Your task to perform on an android device: change timer sound Image 0: 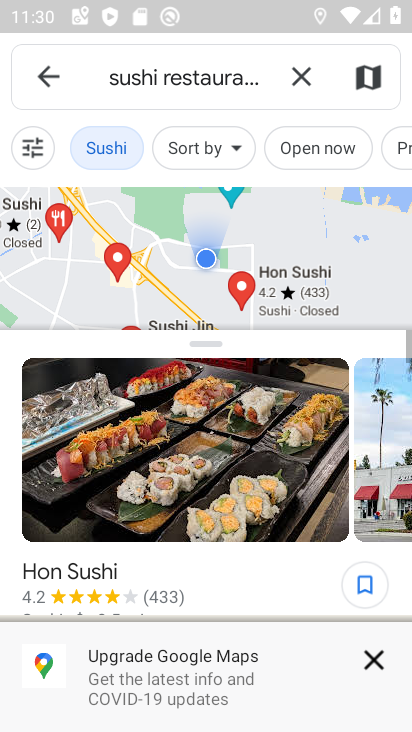
Step 0: press back button
Your task to perform on an android device: change timer sound Image 1: 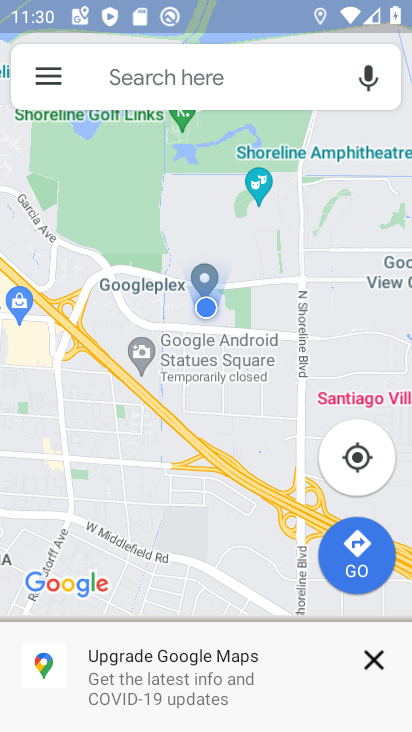
Step 1: press back button
Your task to perform on an android device: change timer sound Image 2: 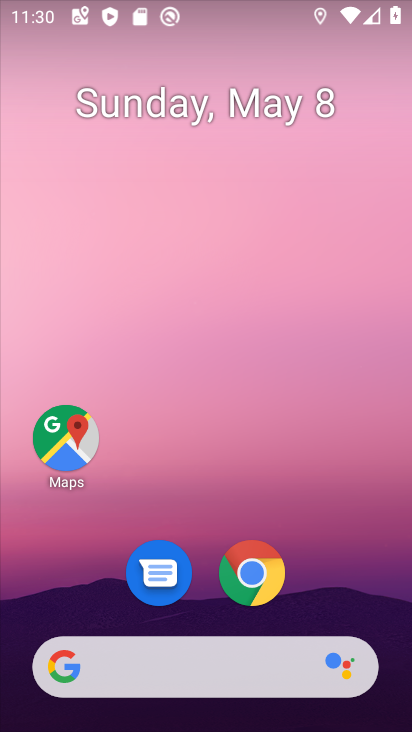
Step 2: drag from (335, 474) to (311, 47)
Your task to perform on an android device: change timer sound Image 3: 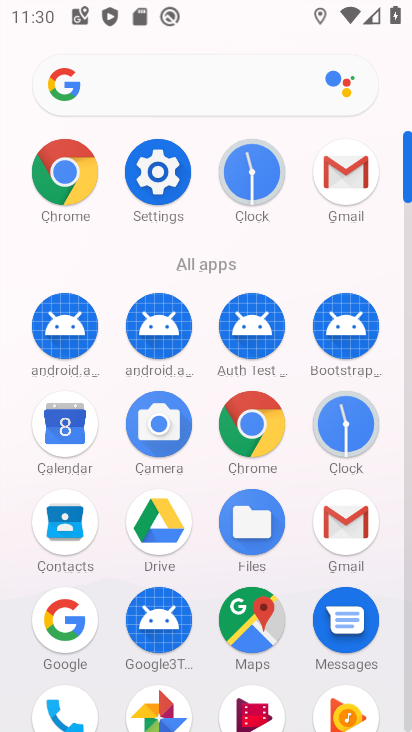
Step 3: click (345, 420)
Your task to perform on an android device: change timer sound Image 4: 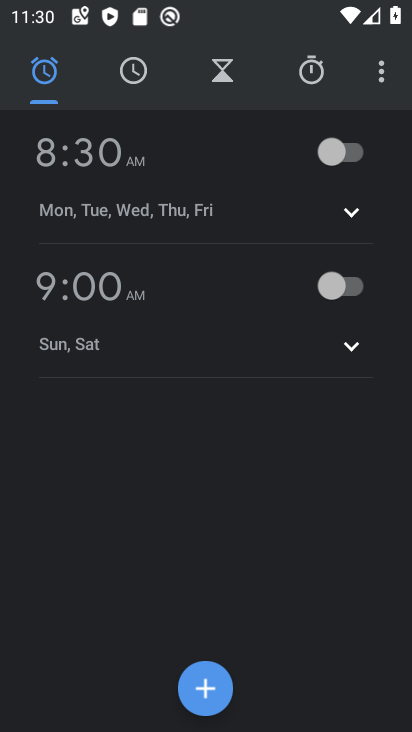
Step 4: drag from (381, 80) to (323, 131)
Your task to perform on an android device: change timer sound Image 5: 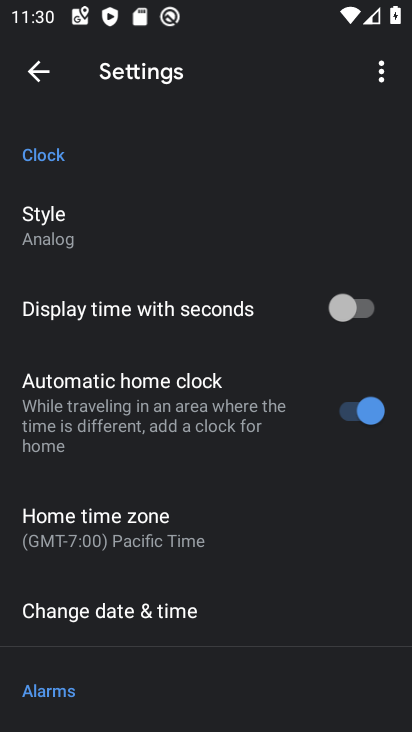
Step 5: drag from (234, 550) to (222, 259)
Your task to perform on an android device: change timer sound Image 6: 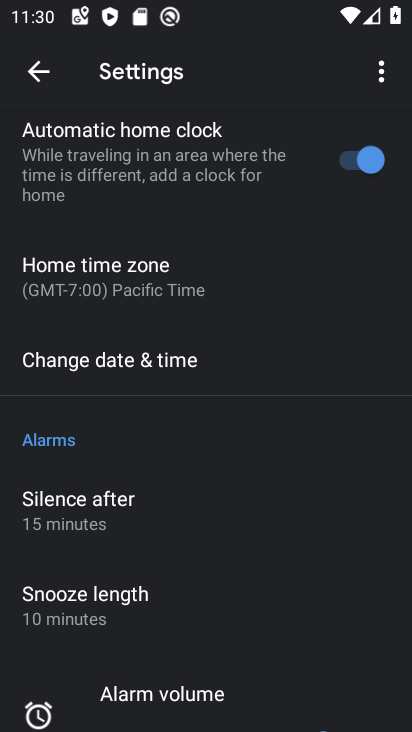
Step 6: drag from (203, 591) to (254, 196)
Your task to perform on an android device: change timer sound Image 7: 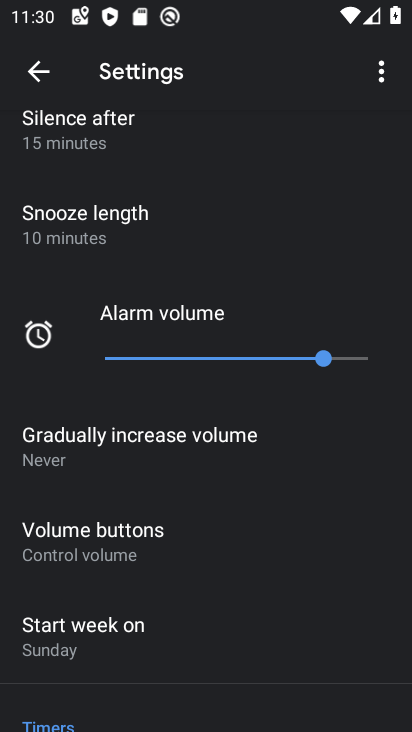
Step 7: drag from (213, 516) to (243, 147)
Your task to perform on an android device: change timer sound Image 8: 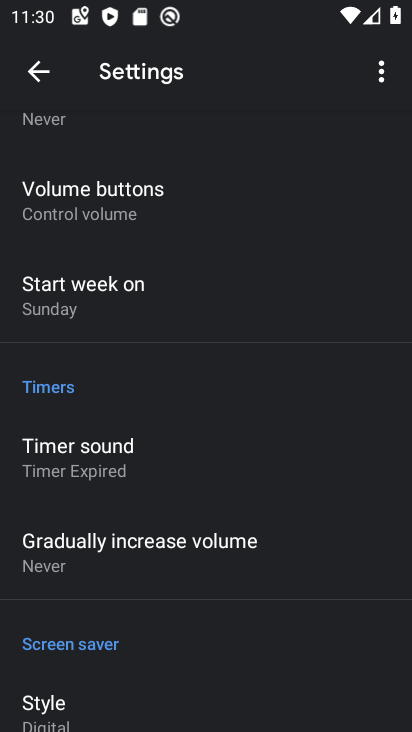
Step 8: drag from (204, 601) to (227, 223)
Your task to perform on an android device: change timer sound Image 9: 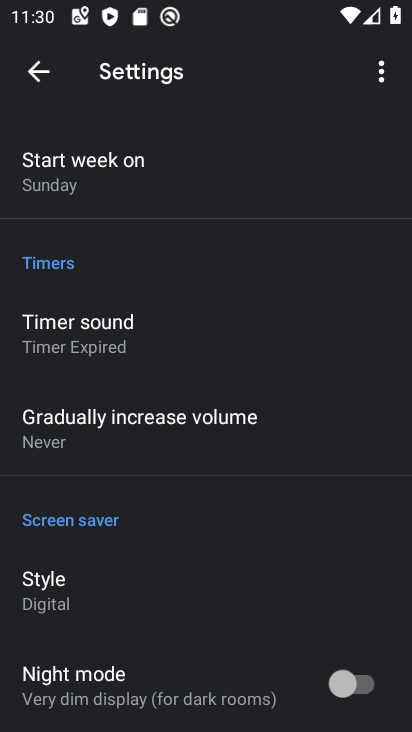
Step 9: drag from (208, 597) to (252, 248)
Your task to perform on an android device: change timer sound Image 10: 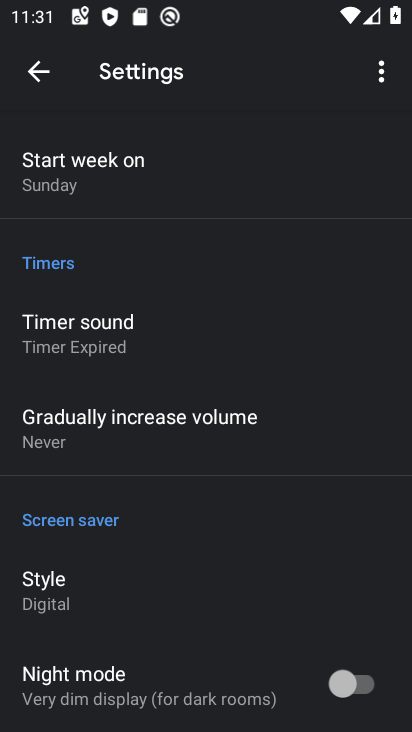
Step 10: drag from (166, 638) to (221, 275)
Your task to perform on an android device: change timer sound Image 11: 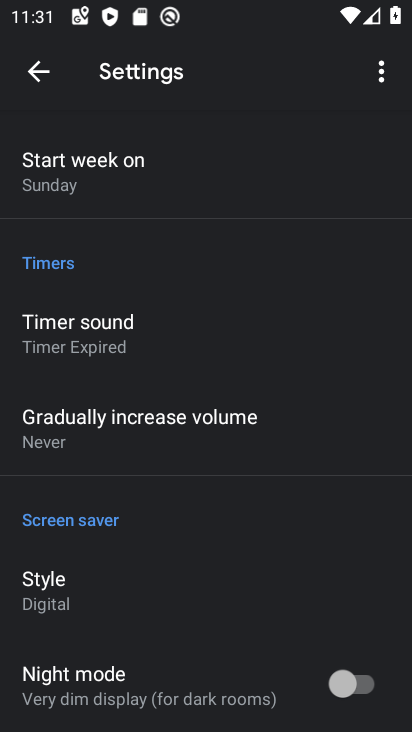
Step 11: click (116, 322)
Your task to perform on an android device: change timer sound Image 12: 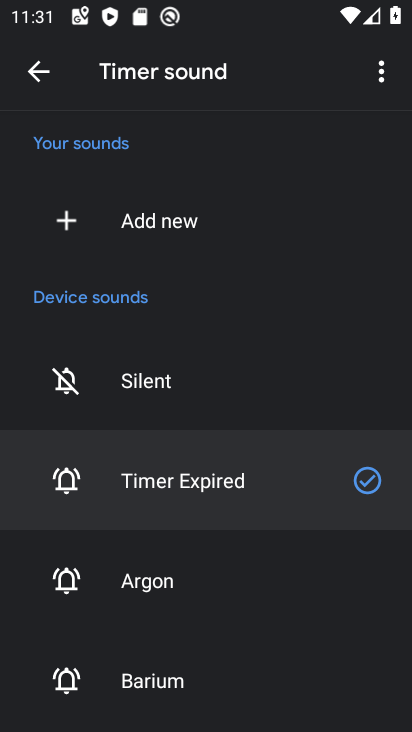
Step 12: drag from (182, 621) to (235, 223)
Your task to perform on an android device: change timer sound Image 13: 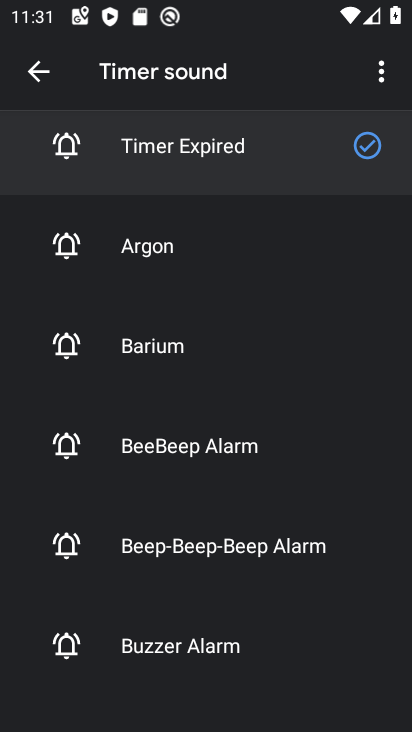
Step 13: click (243, 441)
Your task to perform on an android device: change timer sound Image 14: 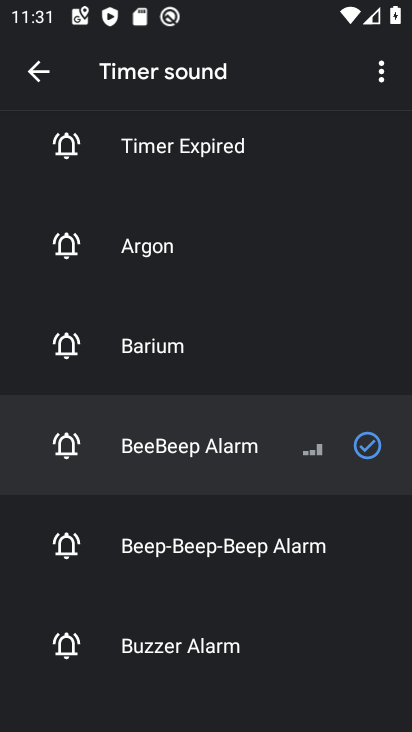
Step 14: click (204, 551)
Your task to perform on an android device: change timer sound Image 15: 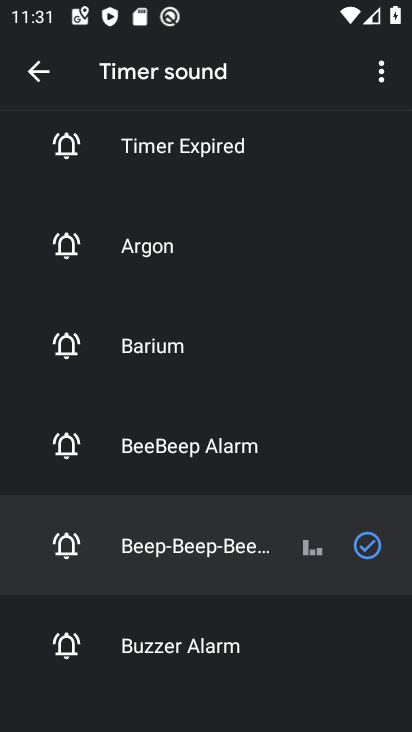
Step 15: task complete